Your task to perform on an android device: What is the capital of Germany? Image 0: 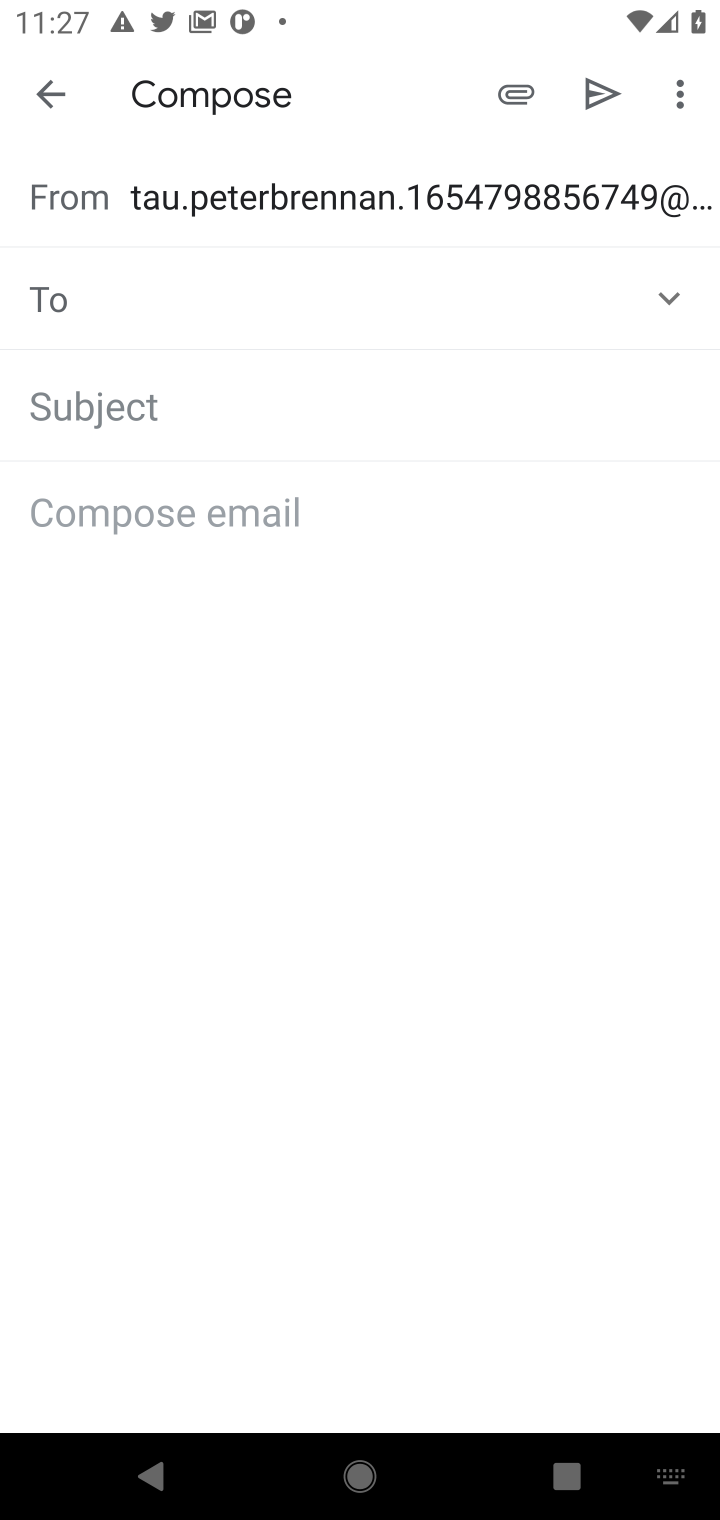
Step 0: press home button
Your task to perform on an android device: What is the capital of Germany? Image 1: 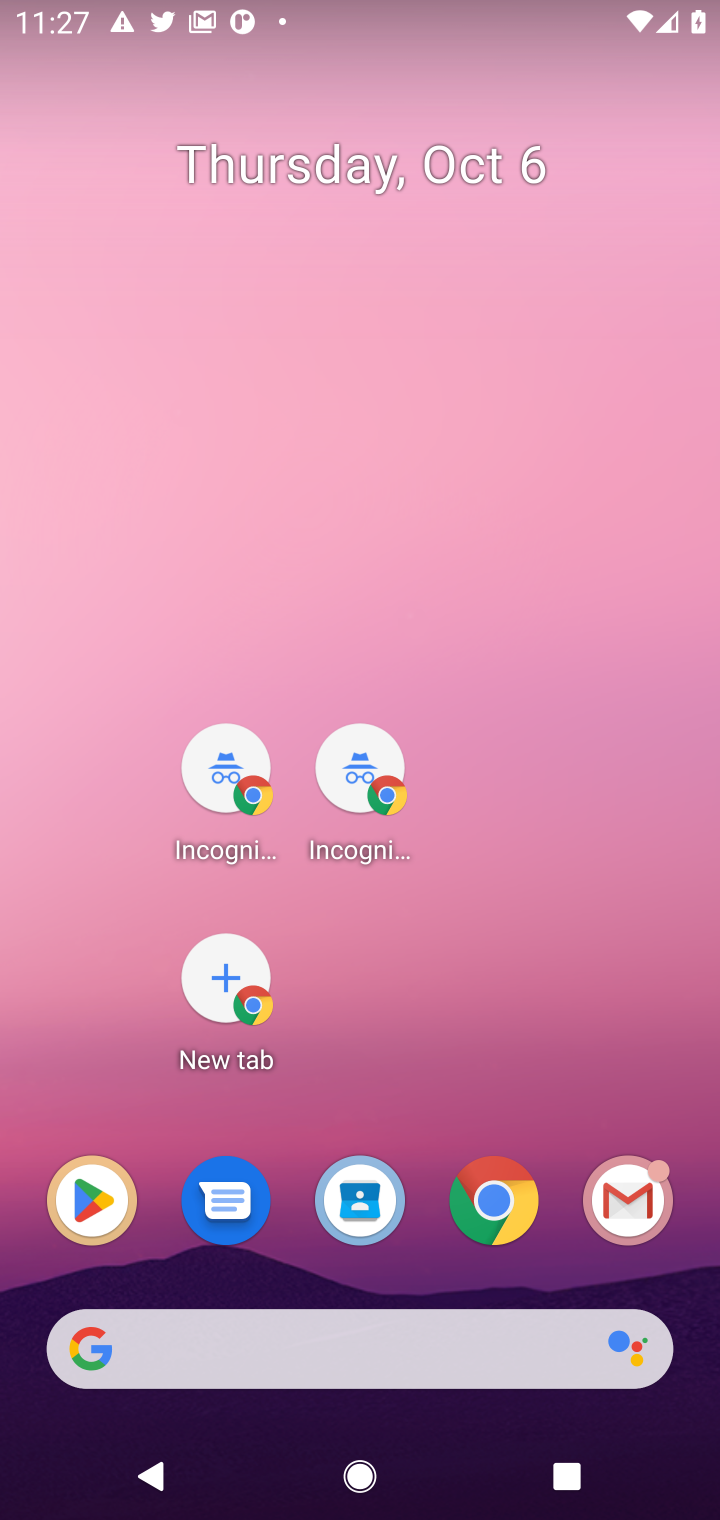
Step 1: click (493, 1203)
Your task to perform on an android device: What is the capital of Germany? Image 2: 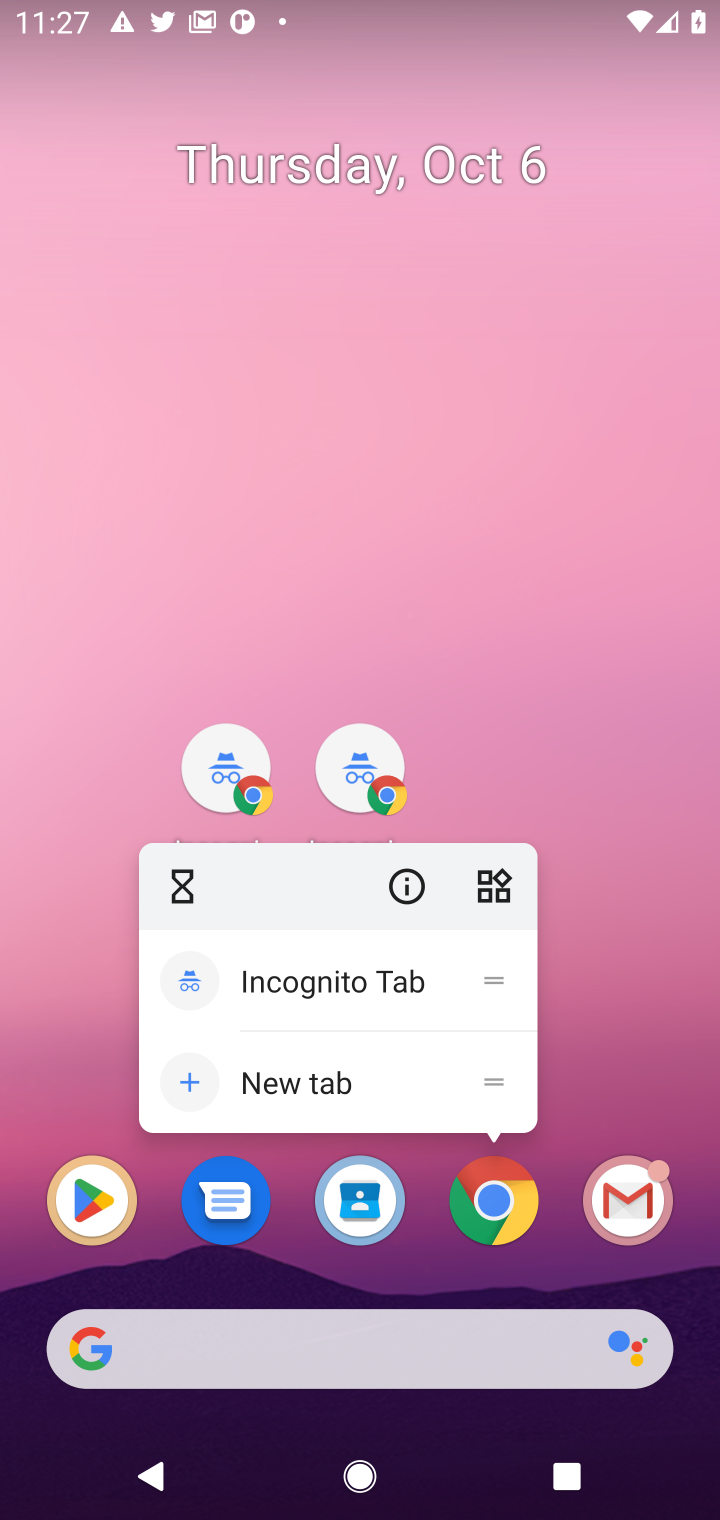
Step 2: click (497, 1203)
Your task to perform on an android device: What is the capital of Germany? Image 3: 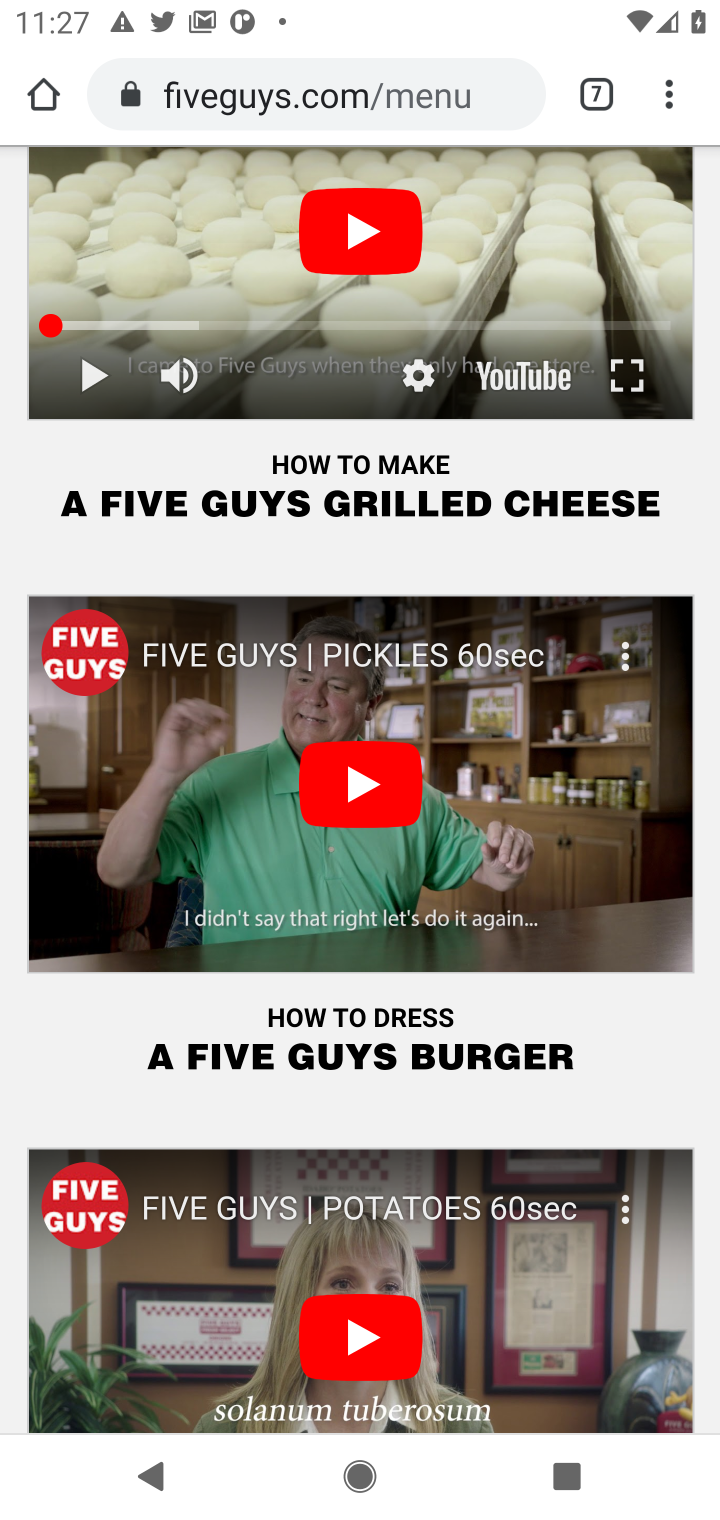
Step 3: click (308, 93)
Your task to perform on an android device: What is the capital of Germany? Image 4: 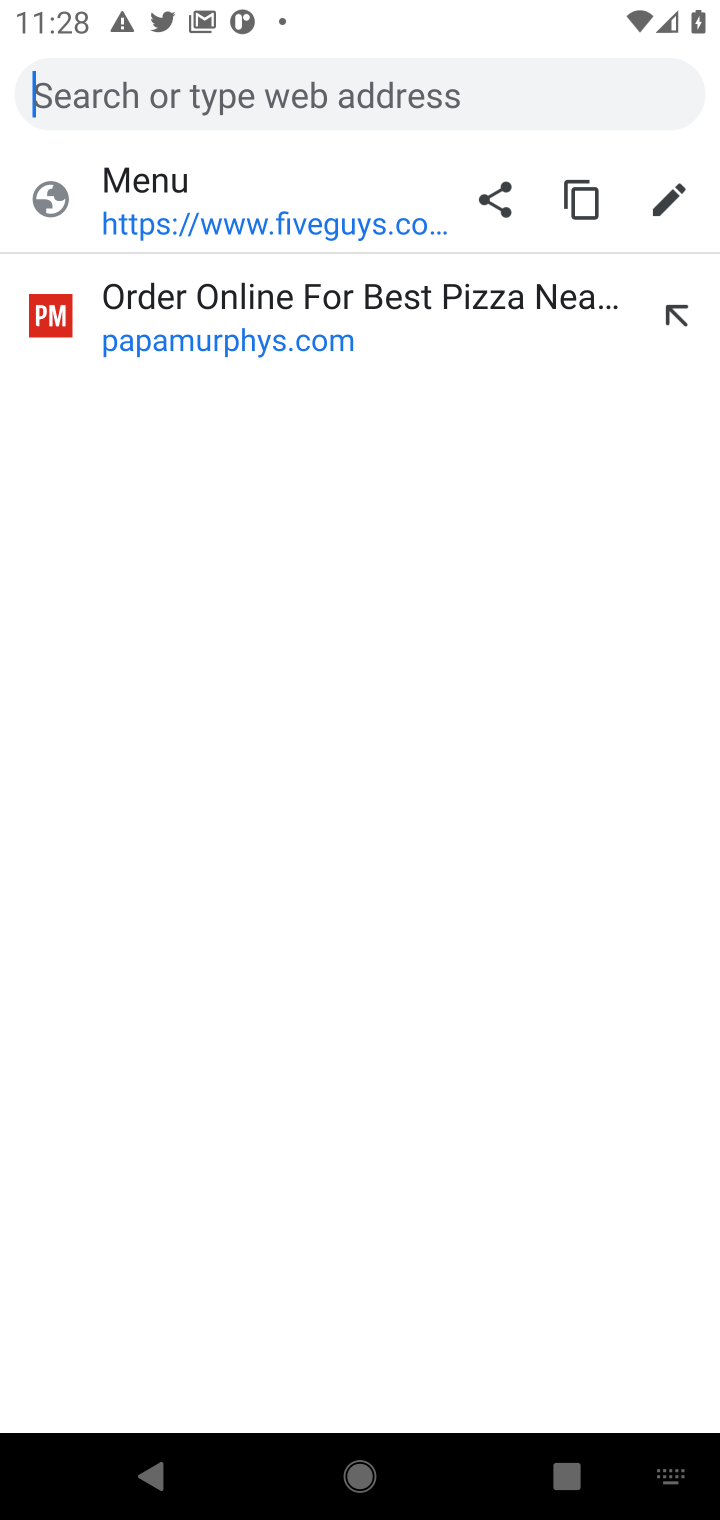
Step 4: type "capital of germany"
Your task to perform on an android device: What is the capital of Germany? Image 5: 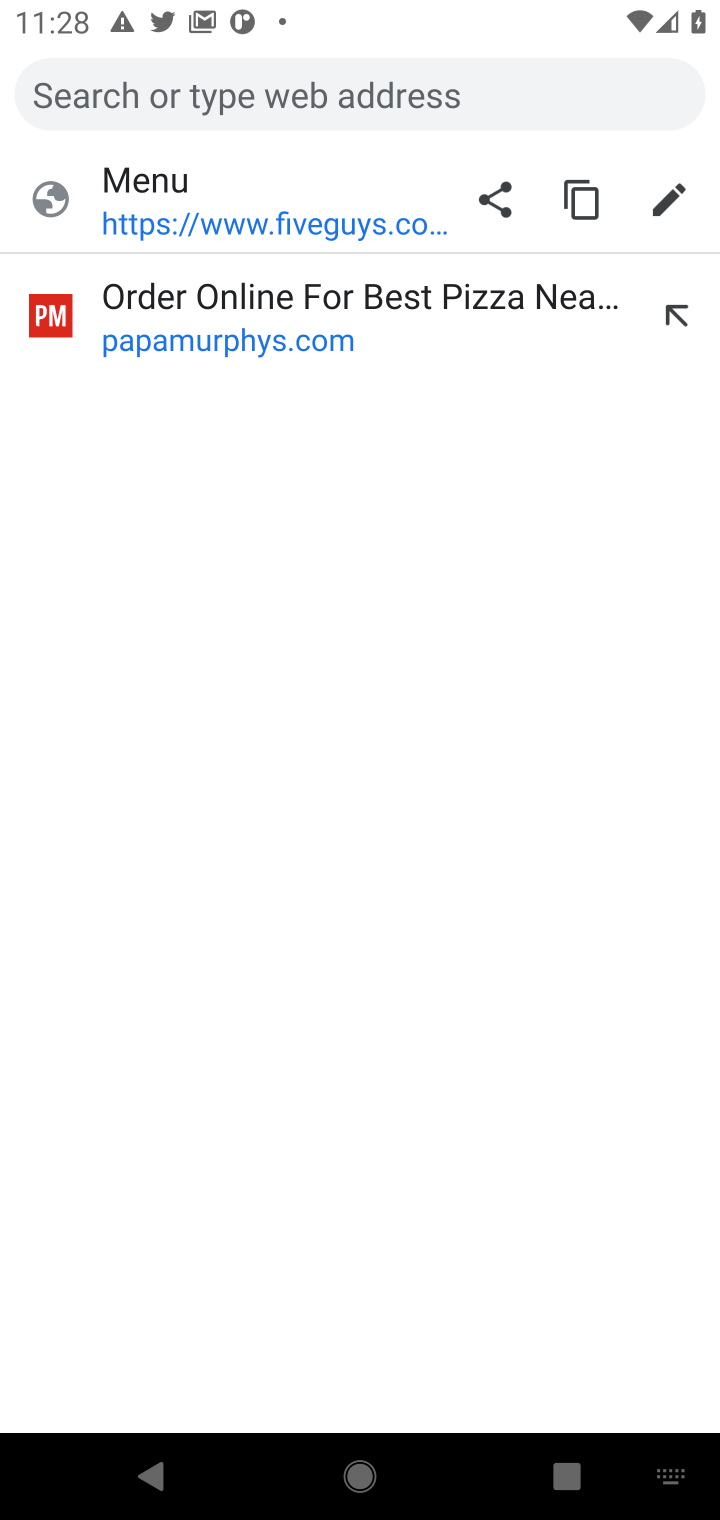
Step 5: click (421, 82)
Your task to perform on an android device: What is the capital of Germany? Image 6: 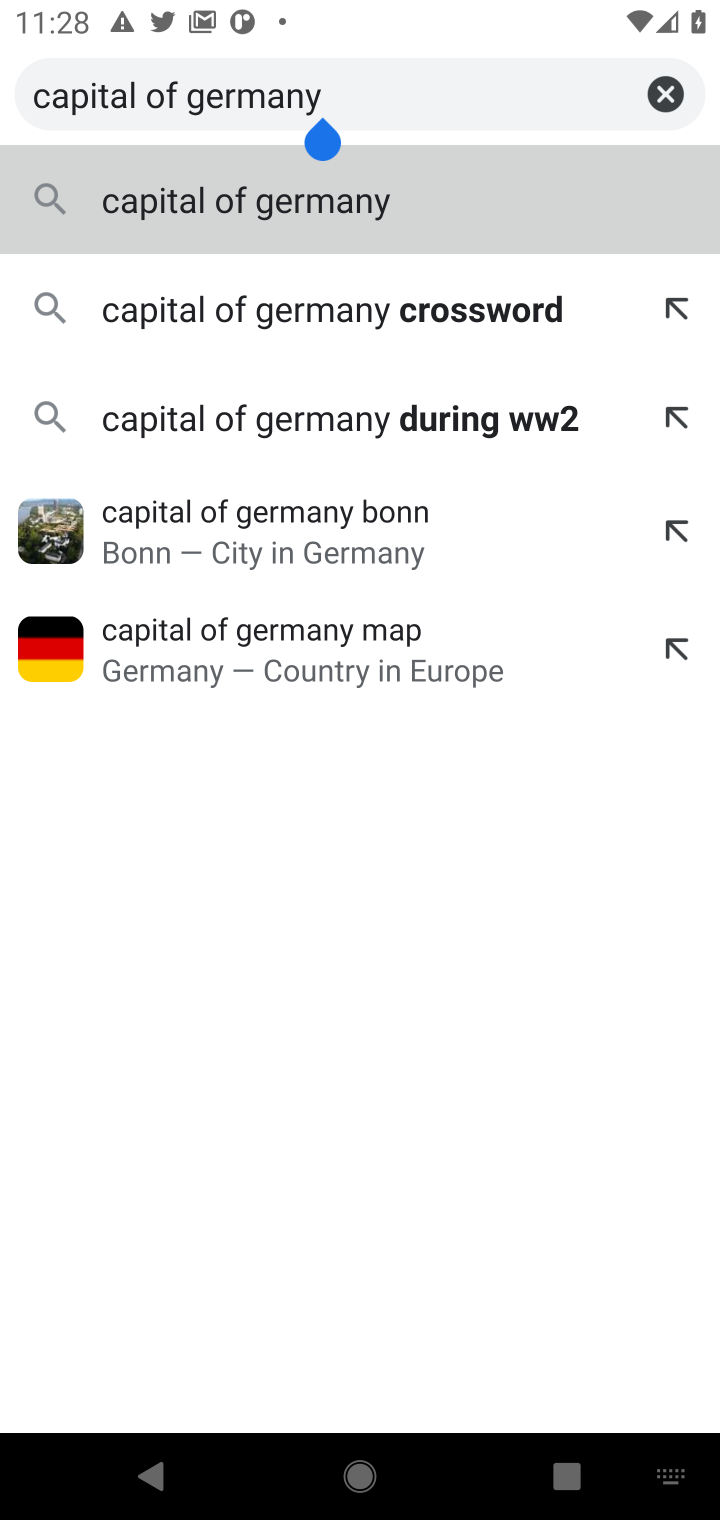
Step 6: click (291, 227)
Your task to perform on an android device: What is the capital of Germany? Image 7: 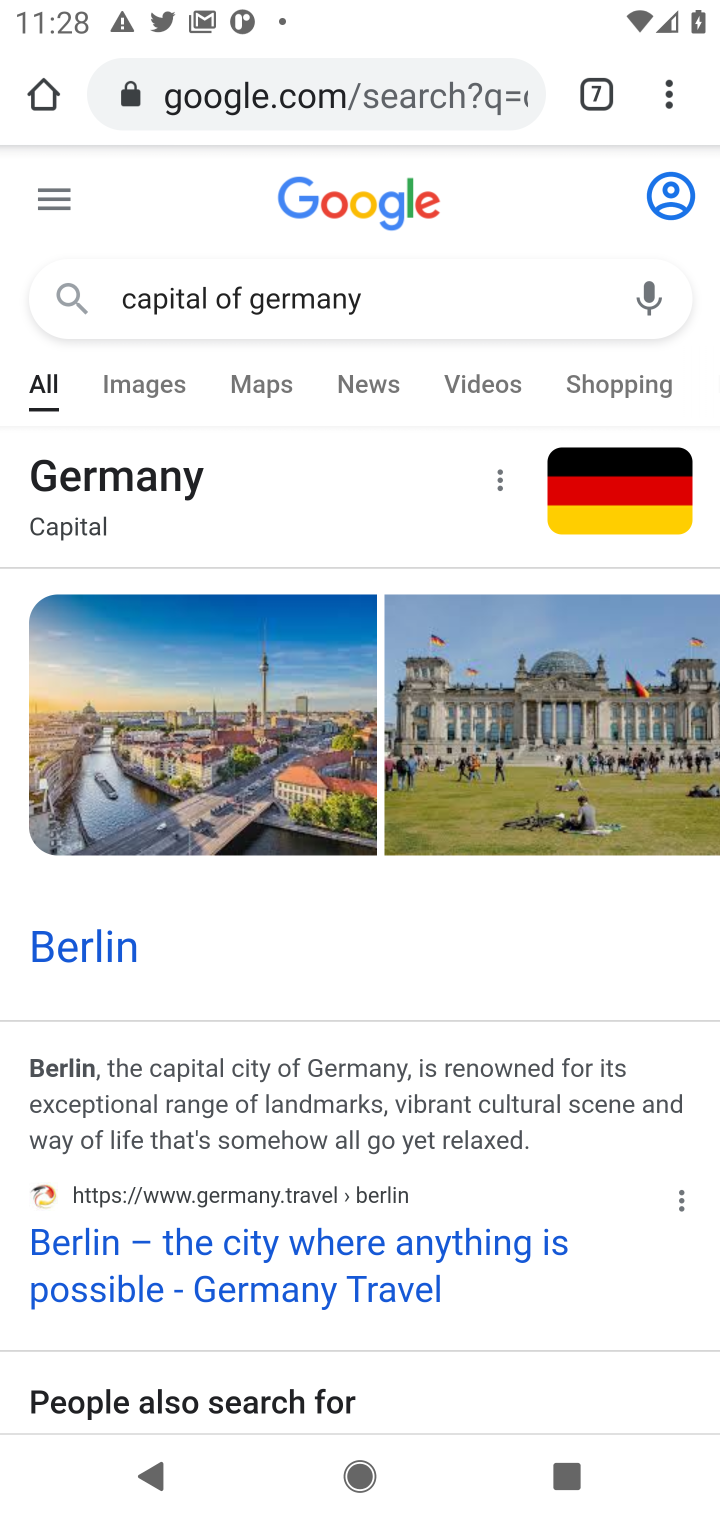
Step 7: task complete